Your task to perform on an android device: open app "PlayWell" (install if not already installed) Image 0: 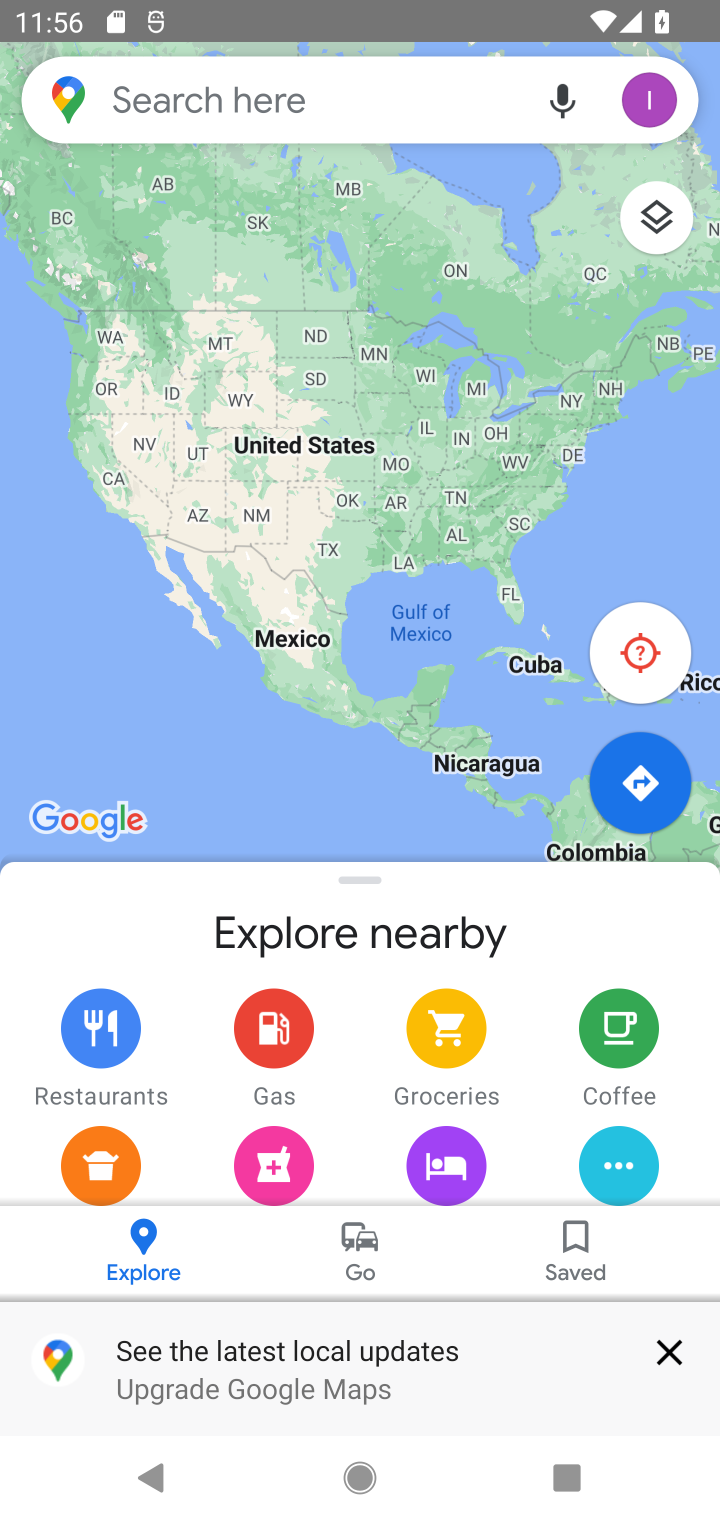
Step 0: press home button
Your task to perform on an android device: open app "PlayWell" (install if not already installed) Image 1: 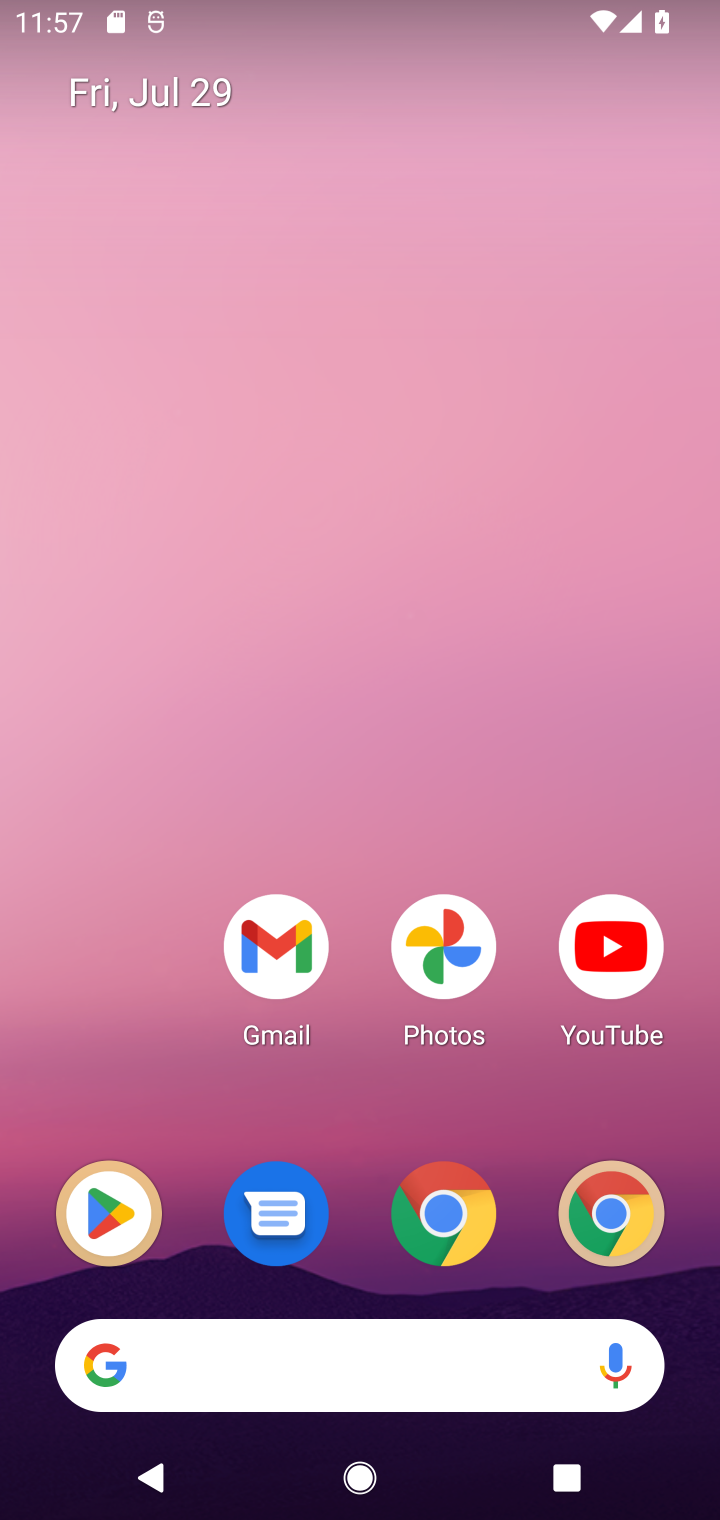
Step 1: drag from (442, 1509) to (525, 57)
Your task to perform on an android device: open app "PlayWell" (install if not already installed) Image 2: 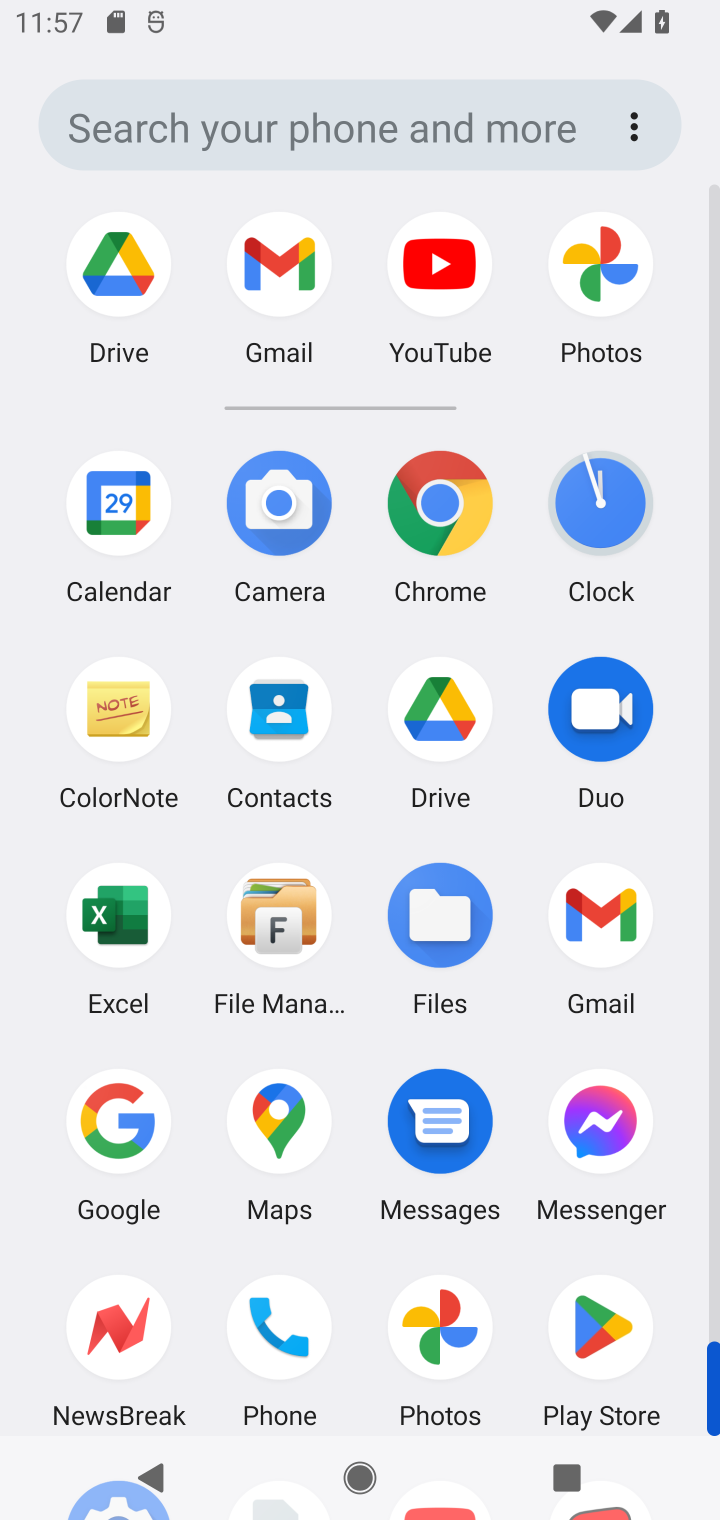
Step 2: click (598, 1321)
Your task to perform on an android device: open app "PlayWell" (install if not already installed) Image 3: 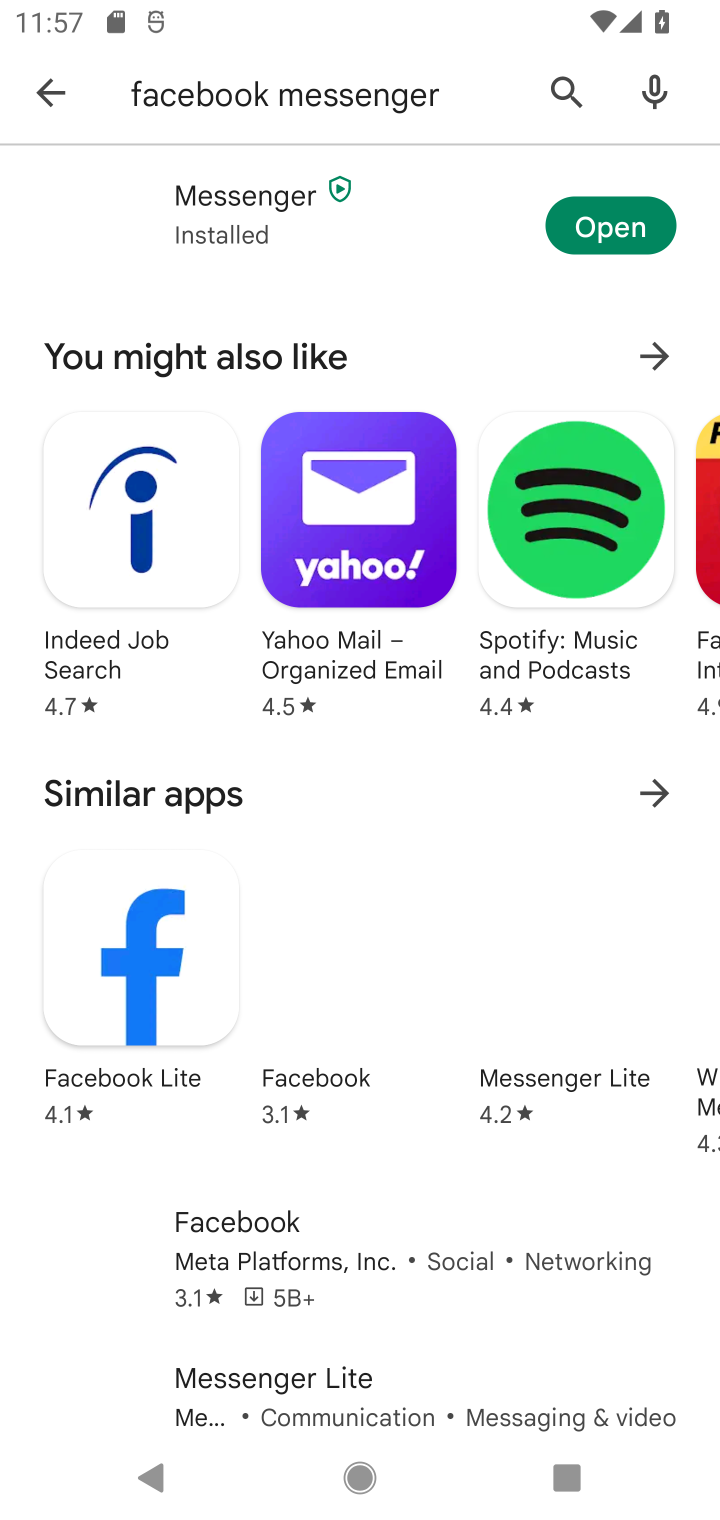
Step 3: click (568, 92)
Your task to perform on an android device: open app "PlayWell" (install if not already installed) Image 4: 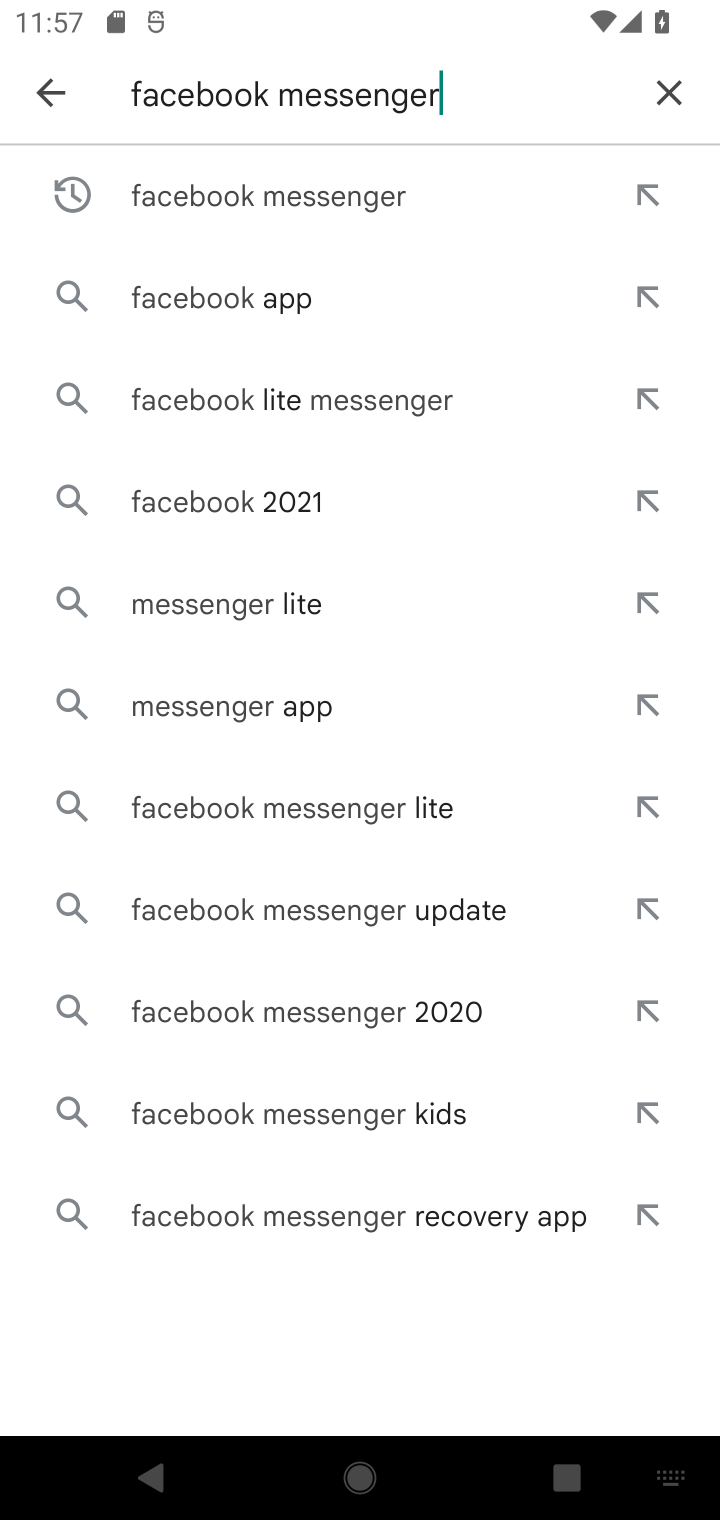
Step 4: click (663, 86)
Your task to perform on an android device: open app "PlayWell" (install if not already installed) Image 5: 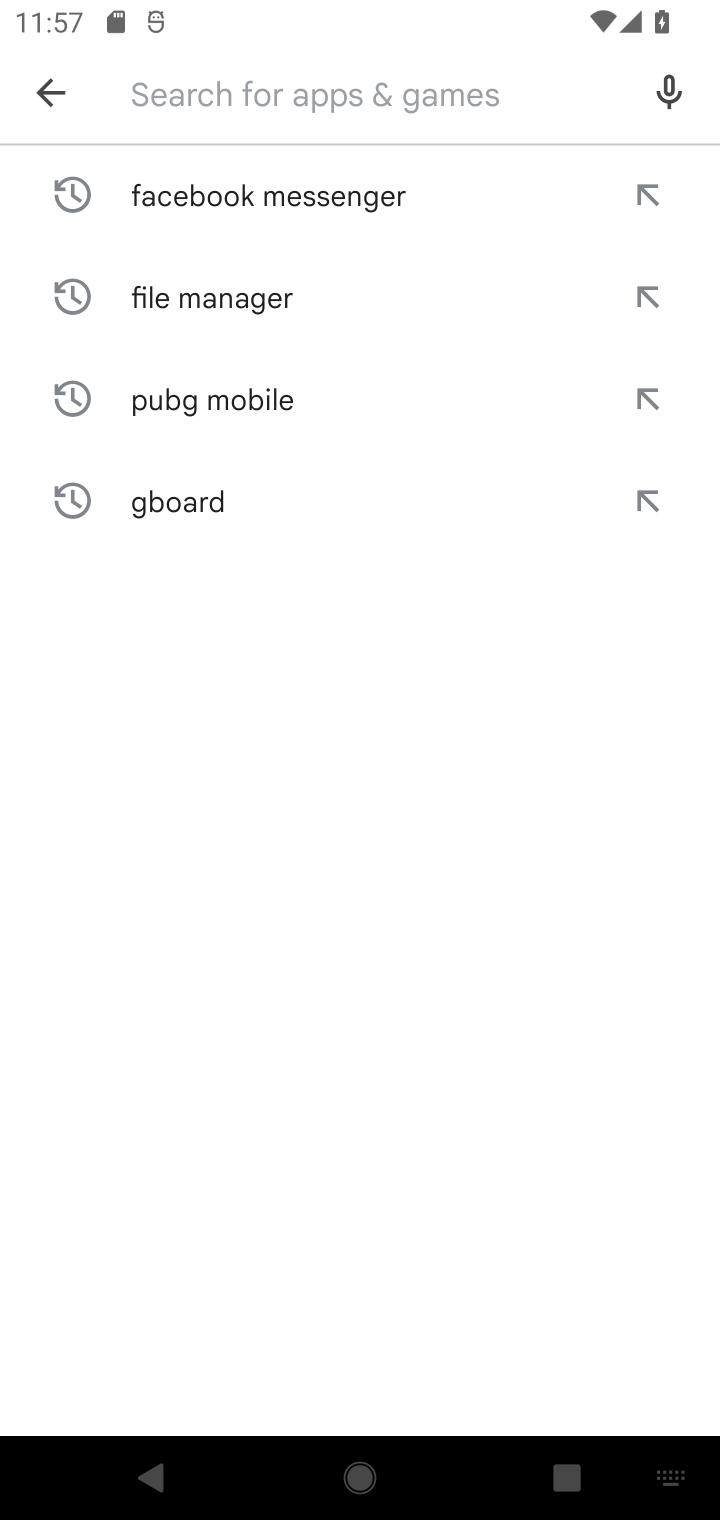
Step 5: type "PlayWell"
Your task to perform on an android device: open app "PlayWell" (install if not already installed) Image 6: 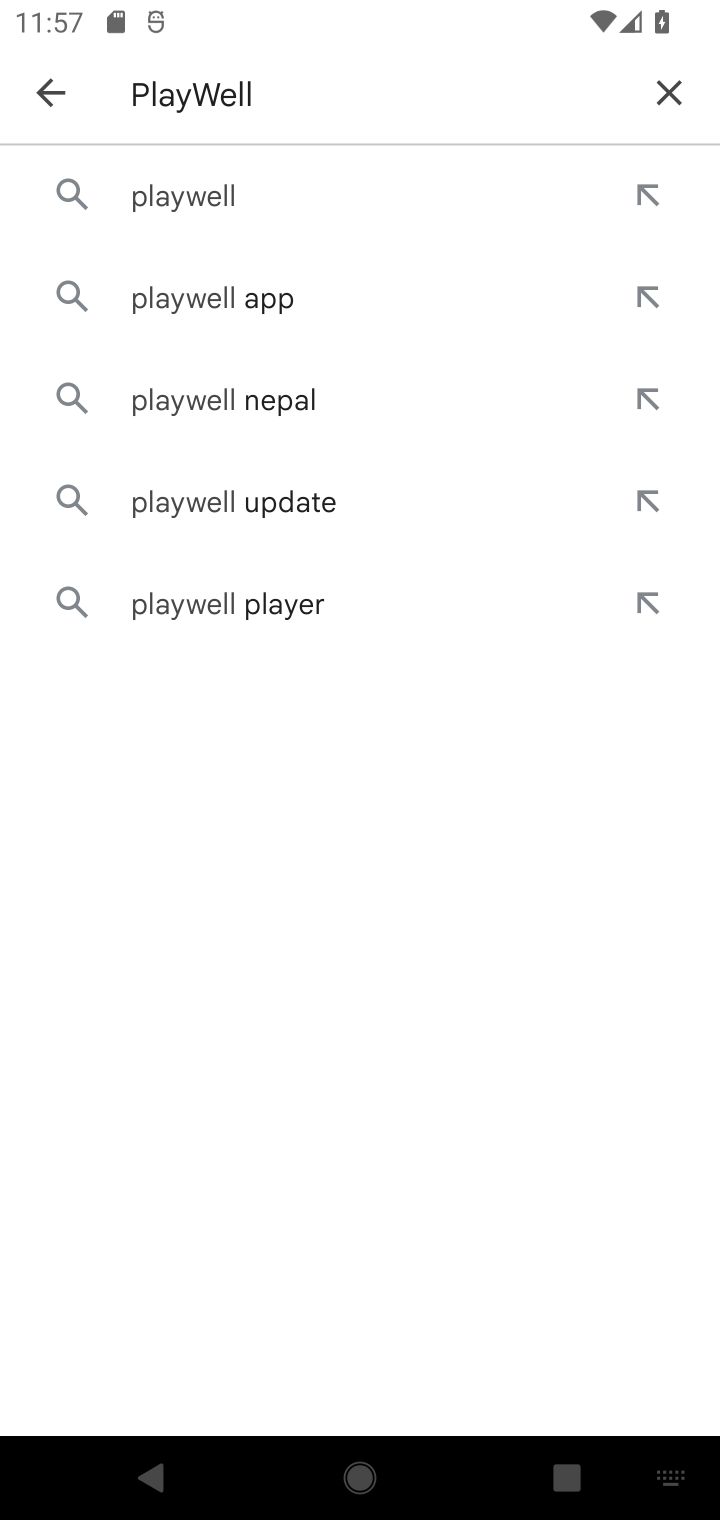
Step 6: click (139, 192)
Your task to perform on an android device: open app "PlayWell" (install if not already installed) Image 7: 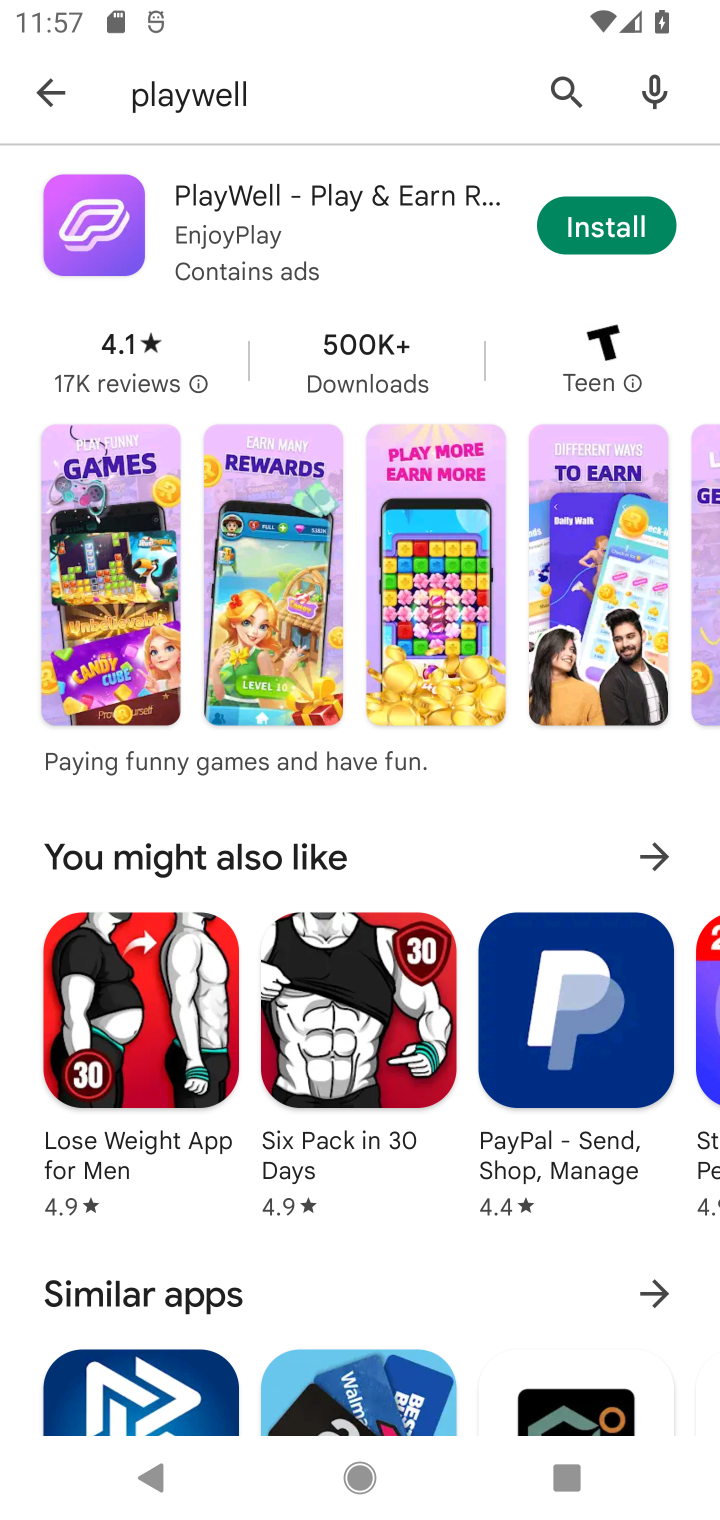
Step 7: click (593, 210)
Your task to perform on an android device: open app "PlayWell" (install if not already installed) Image 8: 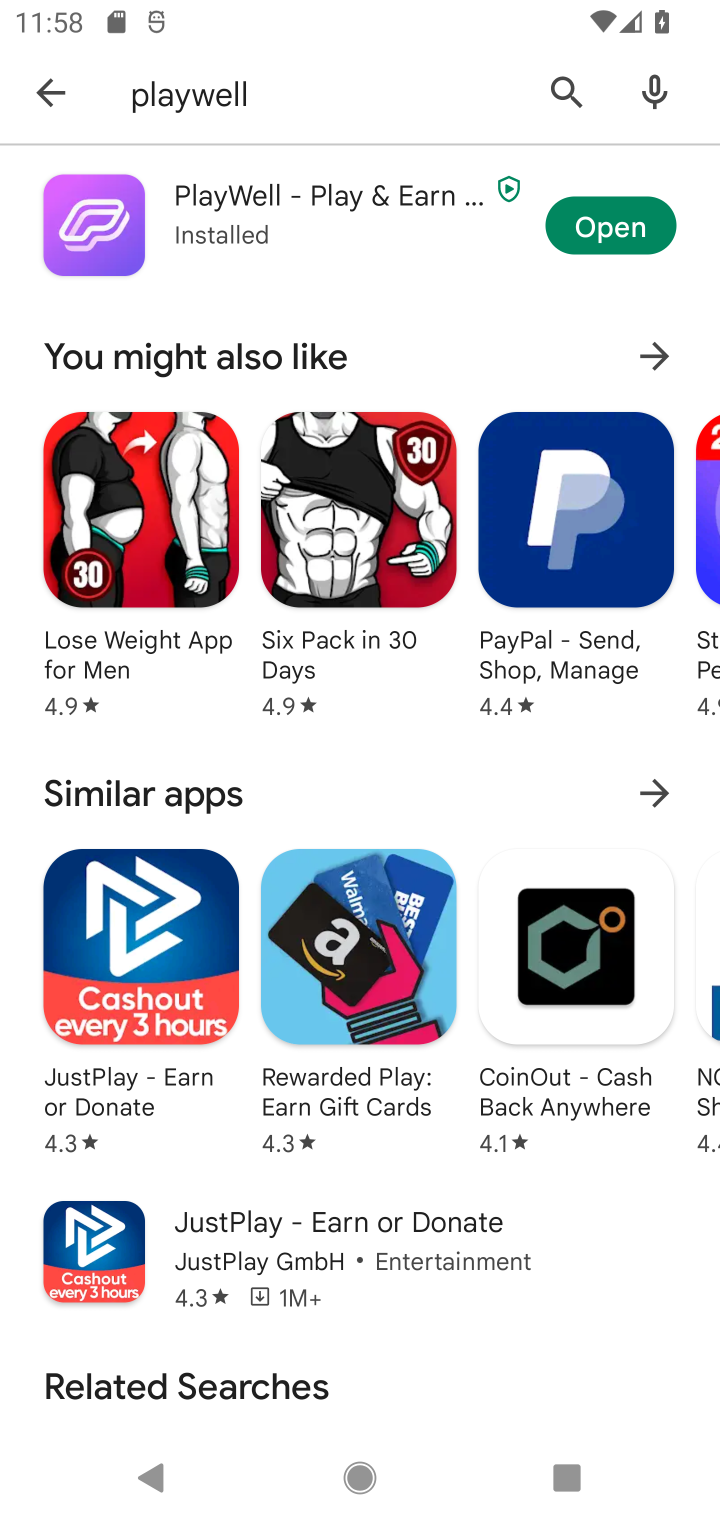
Step 8: task complete